Your task to perform on an android device: Clear the shopping cart on amazon. Image 0: 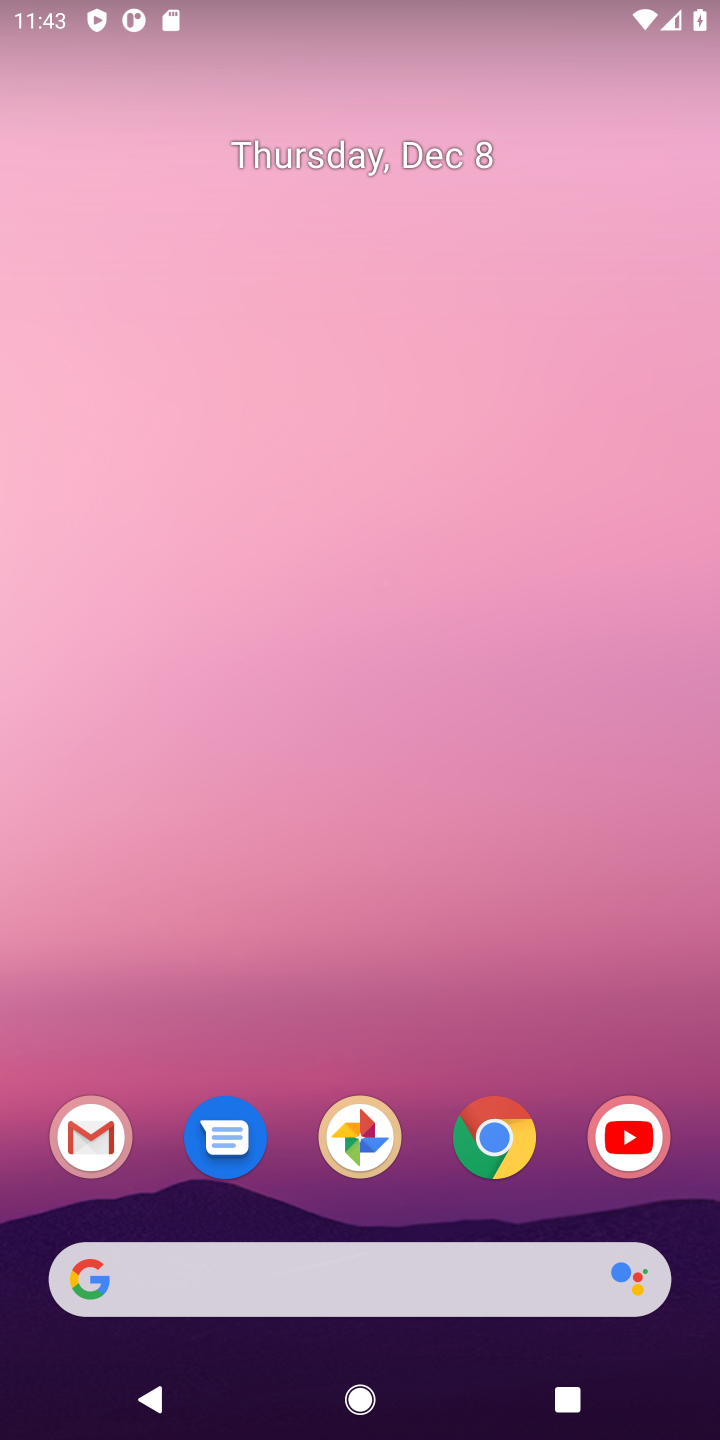
Step 0: click (502, 1125)
Your task to perform on an android device: Clear the shopping cart on amazon. Image 1: 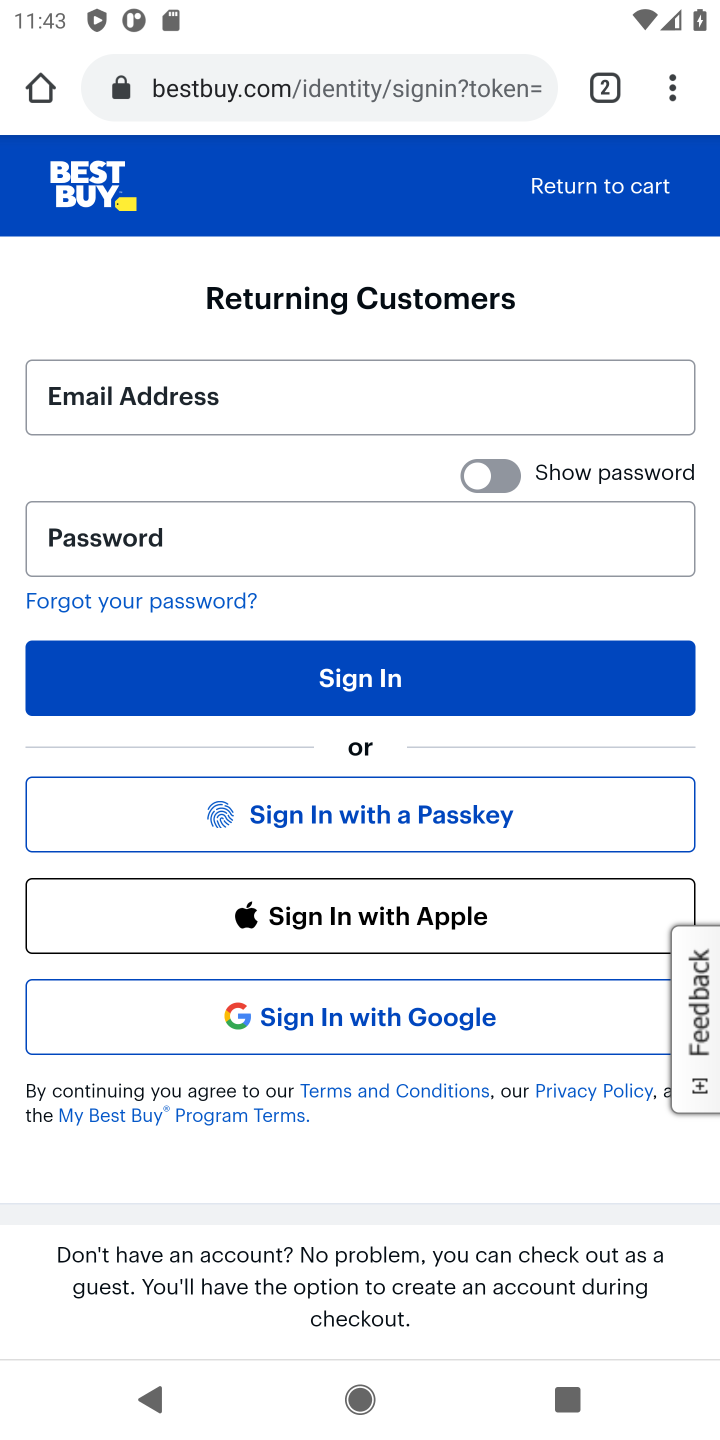
Step 1: click (339, 82)
Your task to perform on an android device: Clear the shopping cart on amazon. Image 2: 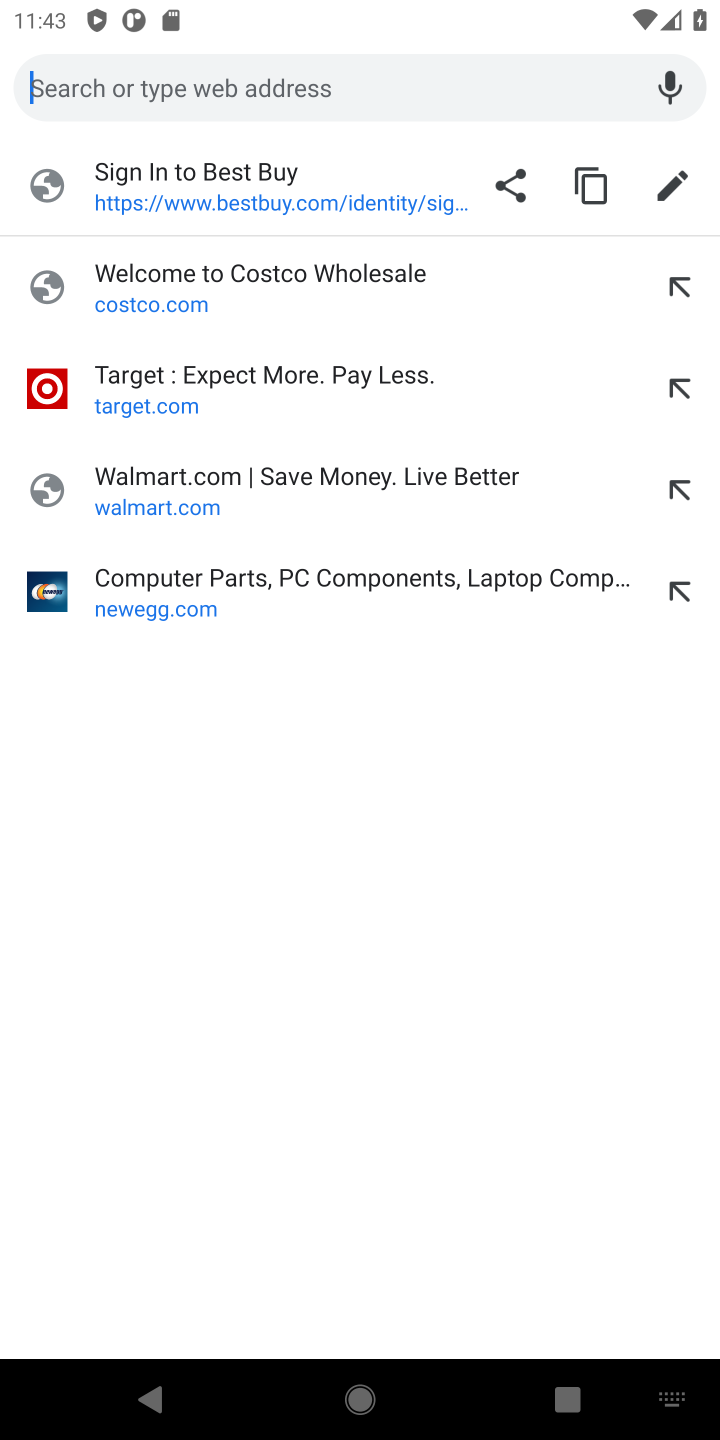
Step 2: type "amazon"
Your task to perform on an android device: Clear the shopping cart on amazon. Image 3: 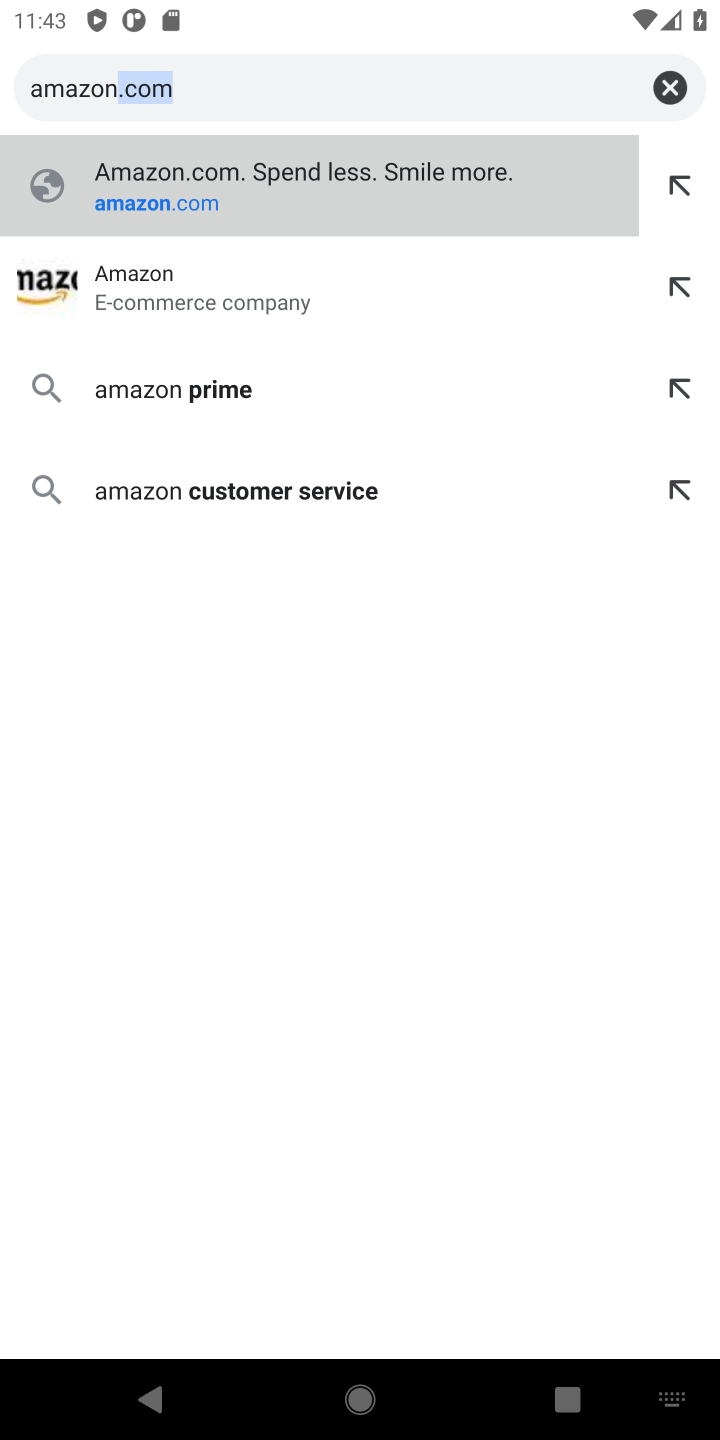
Step 3: click (187, 183)
Your task to perform on an android device: Clear the shopping cart on amazon. Image 4: 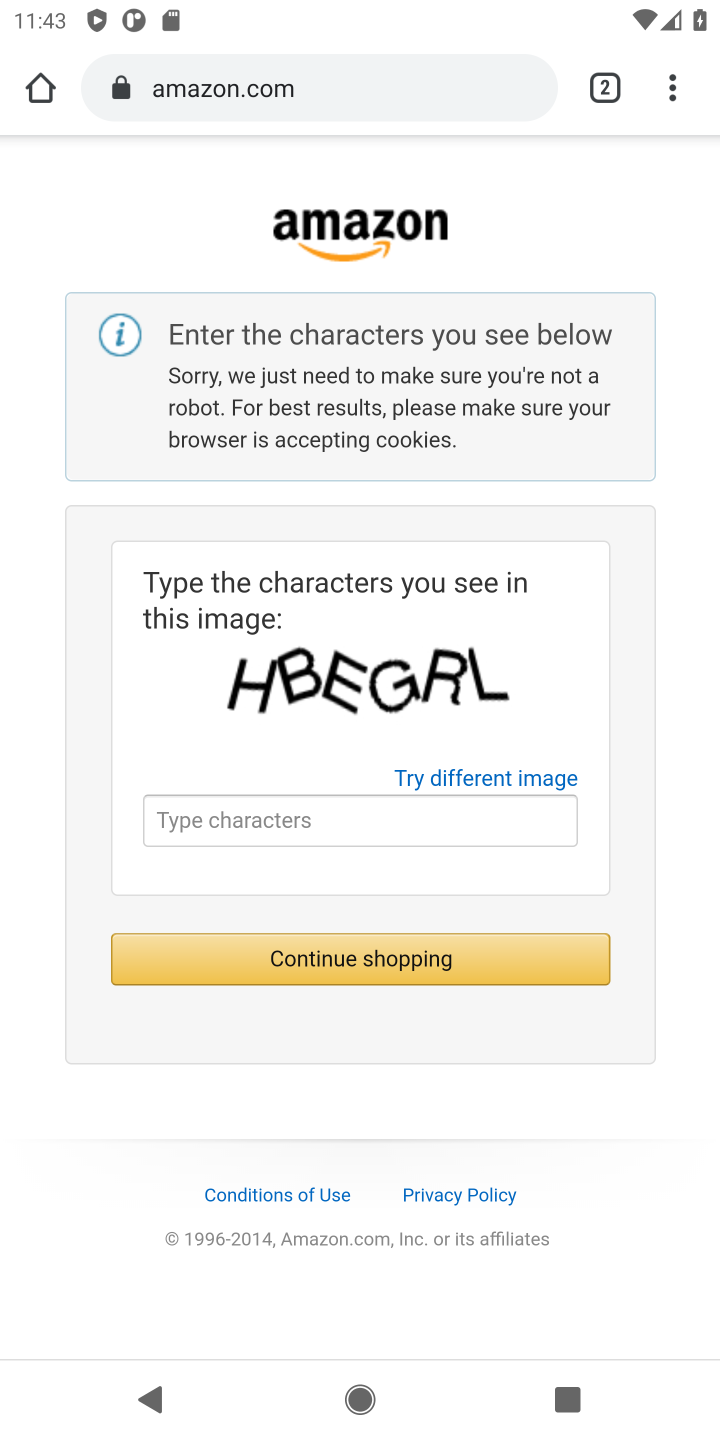
Step 4: click (423, 809)
Your task to perform on an android device: Clear the shopping cart on amazon. Image 5: 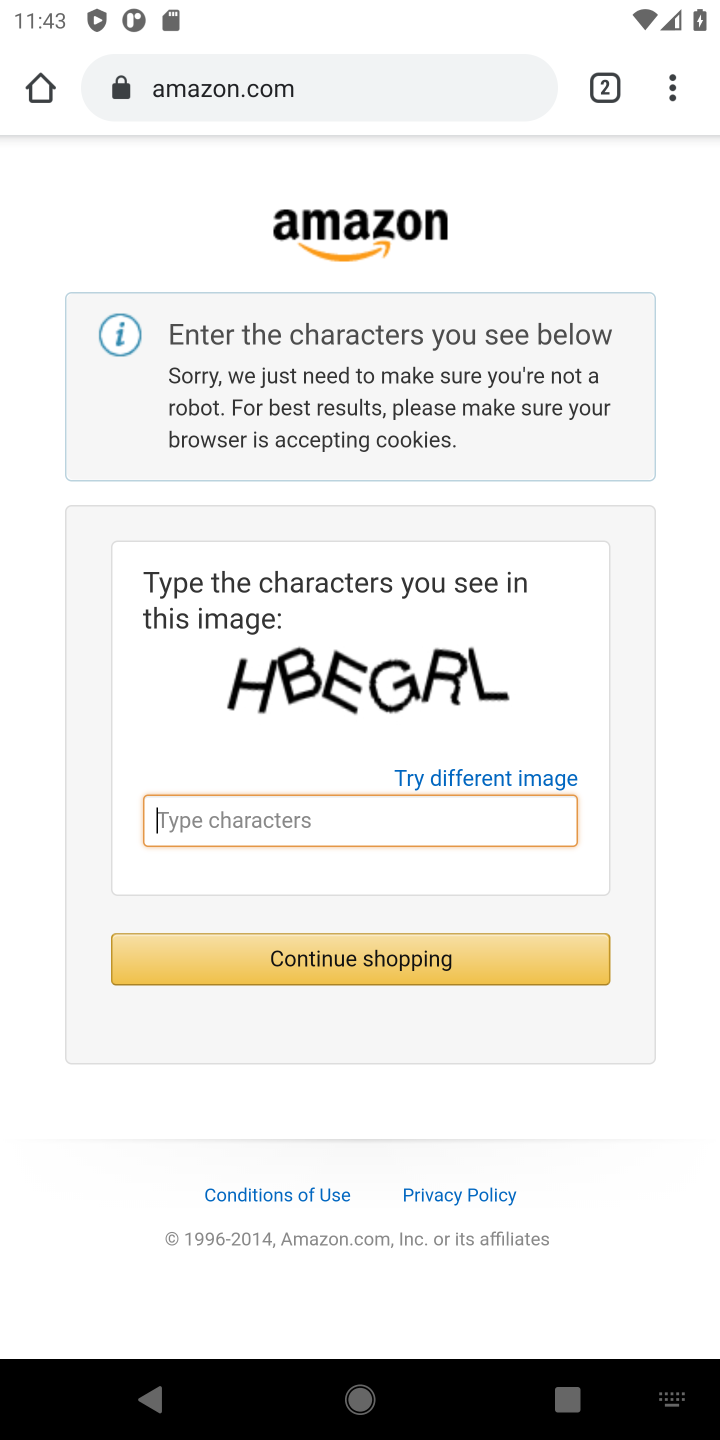
Step 5: type "HBEGRL"
Your task to perform on an android device: Clear the shopping cart on amazon. Image 6: 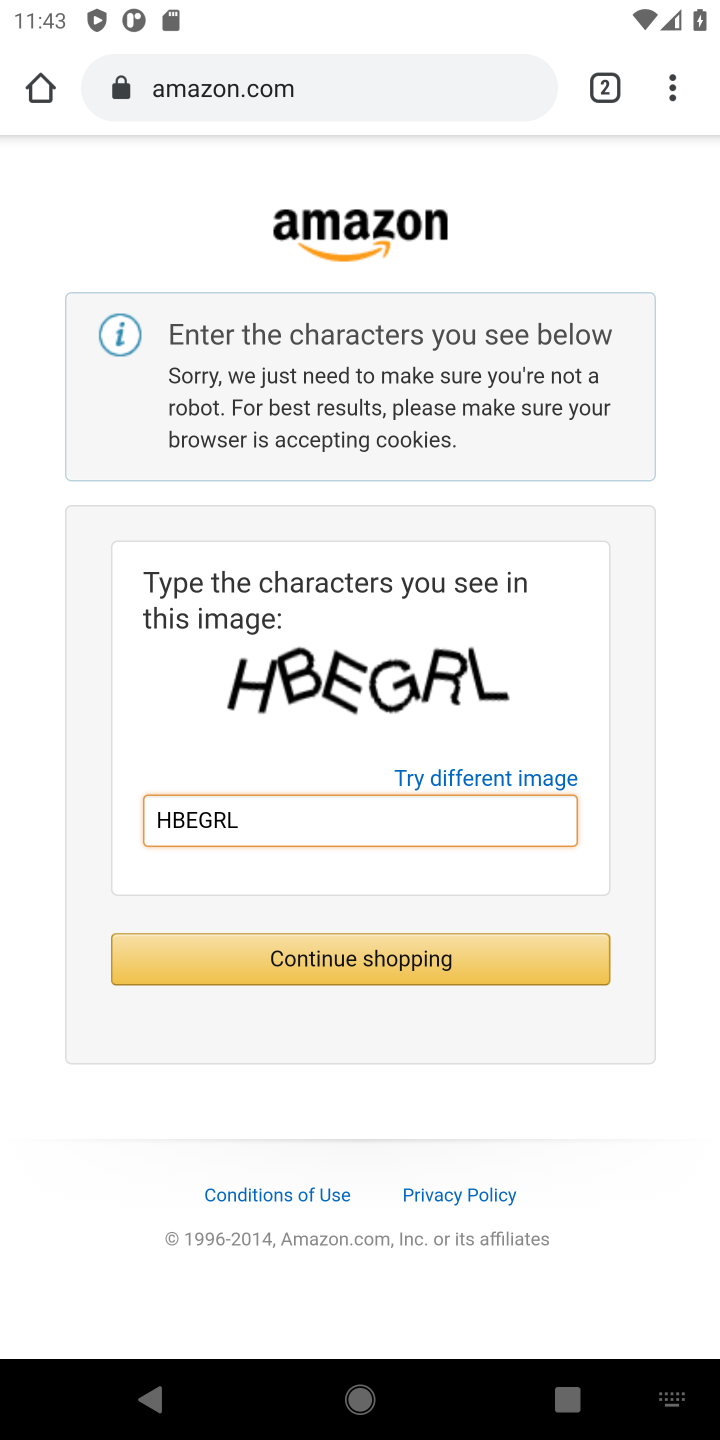
Step 6: click (288, 957)
Your task to perform on an android device: Clear the shopping cart on amazon. Image 7: 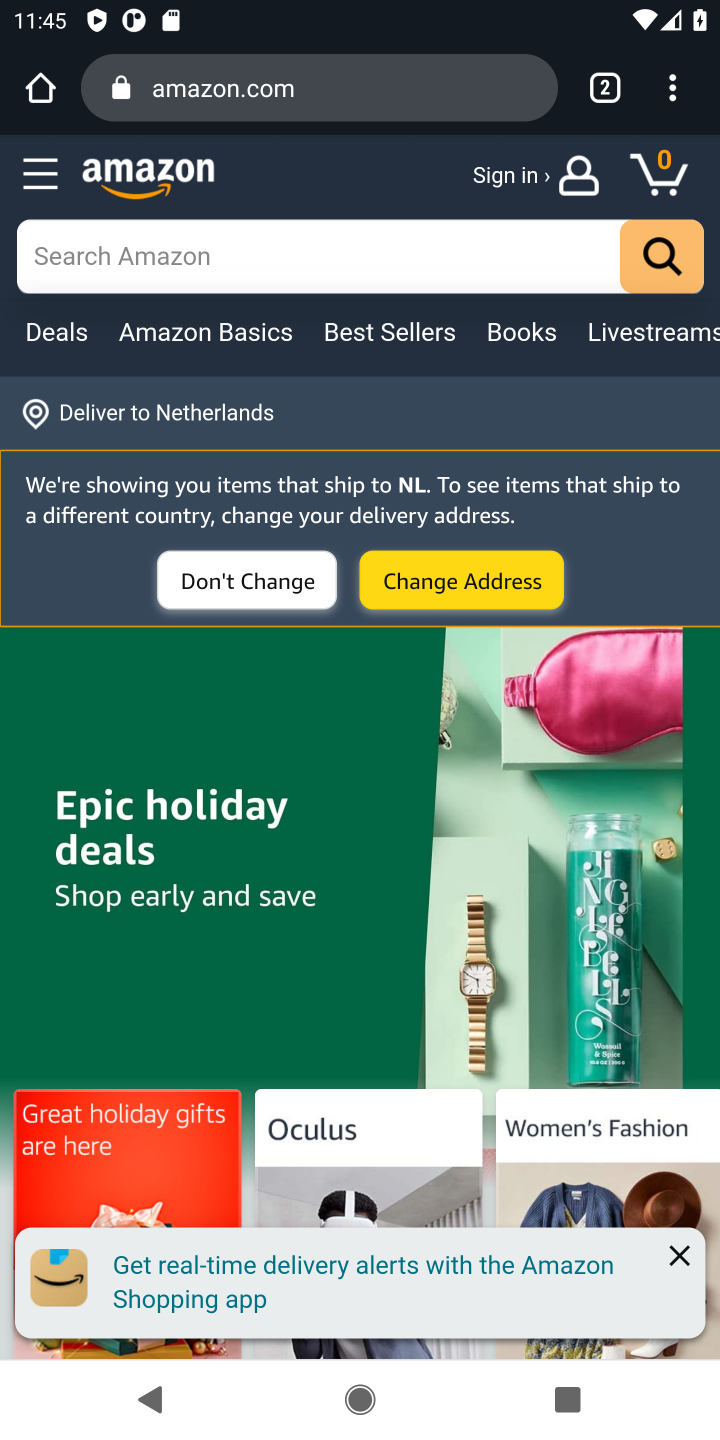
Step 7: task complete